Your task to perform on an android device: Open the web browser Image 0: 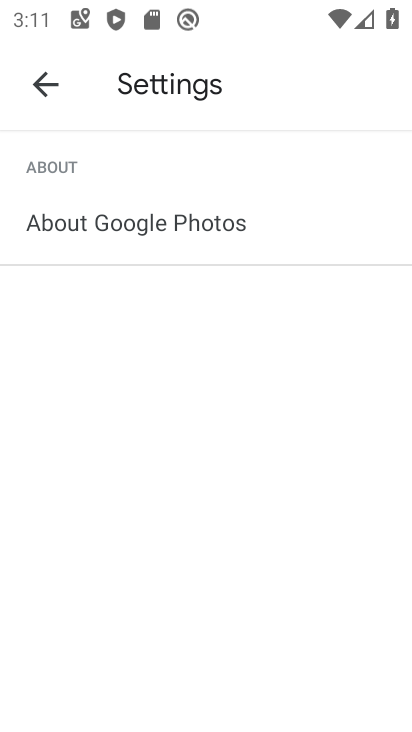
Step 0: press back button
Your task to perform on an android device: Open the web browser Image 1: 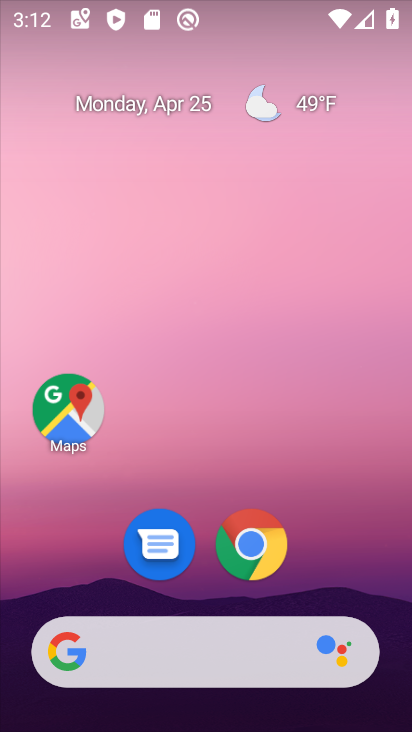
Step 1: click (253, 546)
Your task to perform on an android device: Open the web browser Image 2: 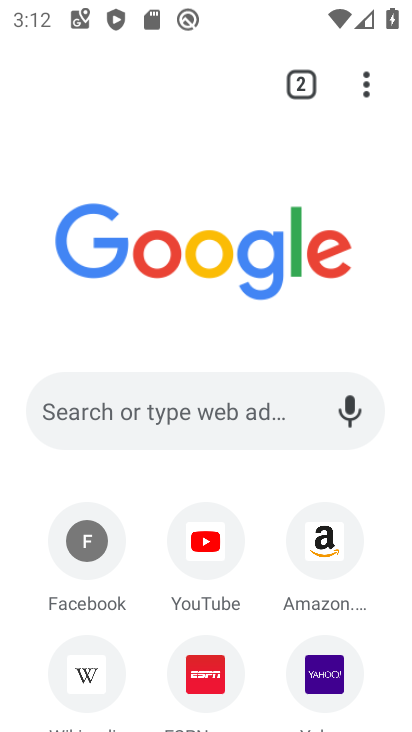
Step 2: task complete